Your task to perform on an android device: Open internet settings Image 0: 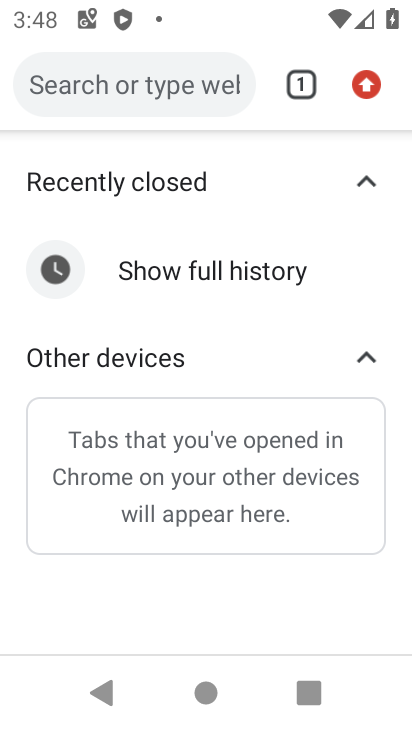
Step 0: press home button
Your task to perform on an android device: Open internet settings Image 1: 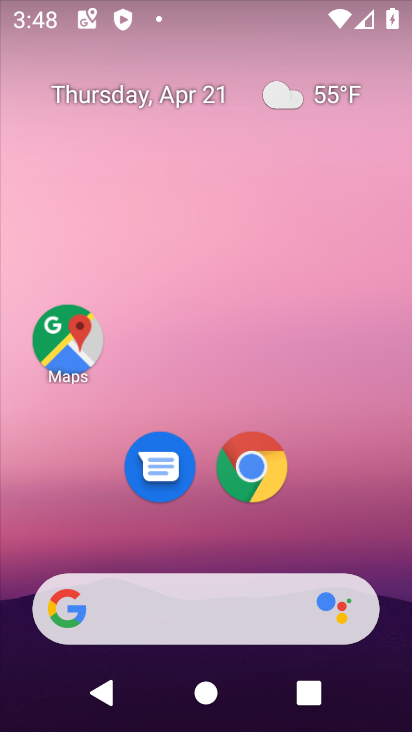
Step 1: drag from (231, 663) to (214, 196)
Your task to perform on an android device: Open internet settings Image 2: 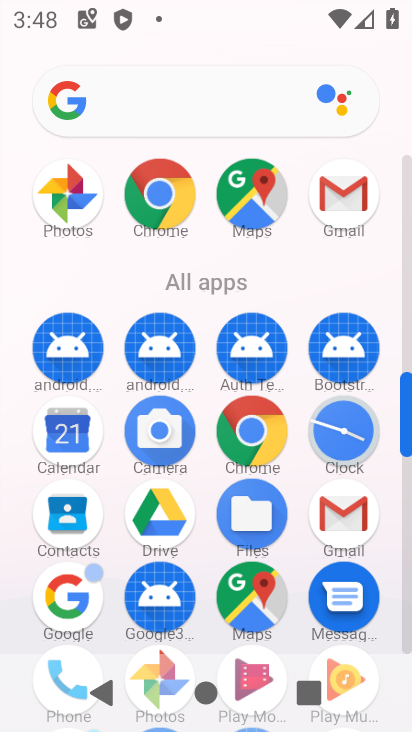
Step 2: drag from (144, 604) to (132, 213)
Your task to perform on an android device: Open internet settings Image 3: 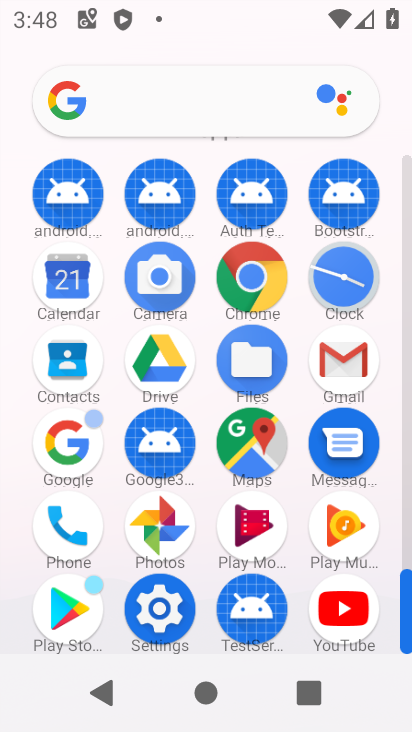
Step 3: click (166, 601)
Your task to perform on an android device: Open internet settings Image 4: 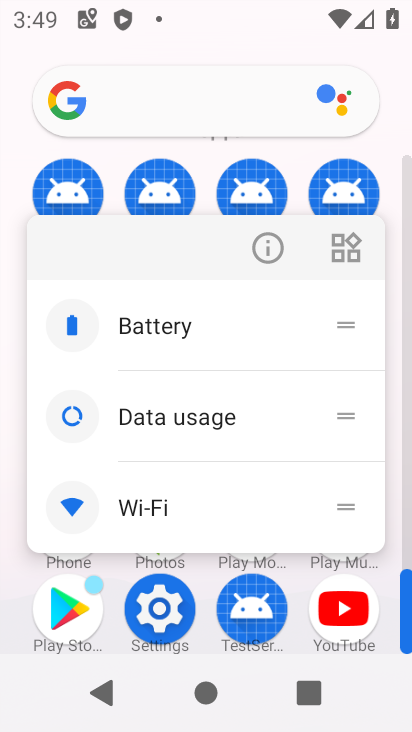
Step 4: click (143, 623)
Your task to perform on an android device: Open internet settings Image 5: 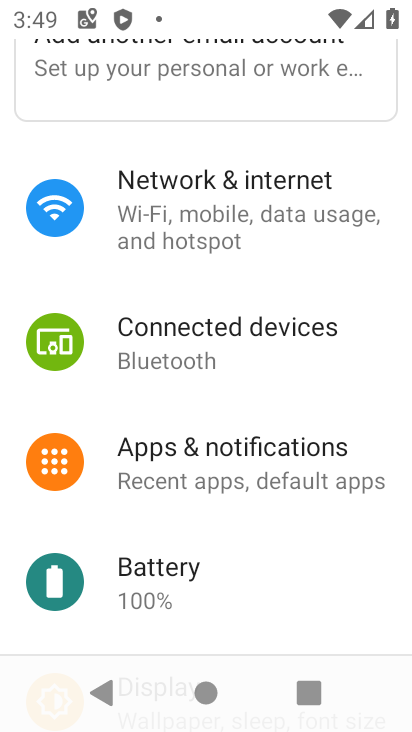
Step 5: click (238, 231)
Your task to perform on an android device: Open internet settings Image 6: 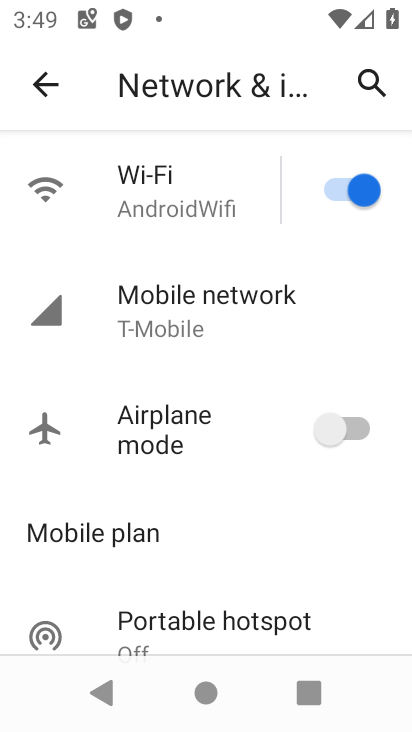
Step 6: drag from (175, 467) to (171, 245)
Your task to perform on an android device: Open internet settings Image 7: 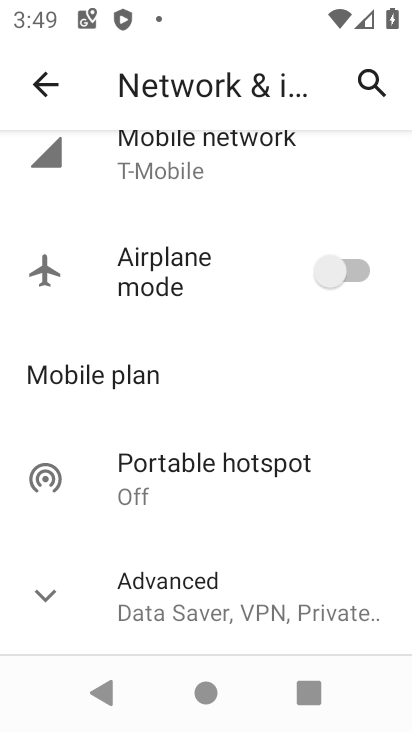
Step 7: click (201, 161)
Your task to perform on an android device: Open internet settings Image 8: 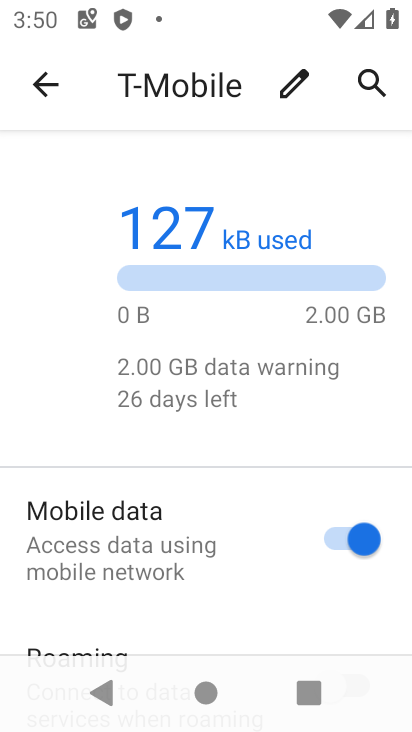
Step 8: click (276, 191)
Your task to perform on an android device: Open internet settings Image 9: 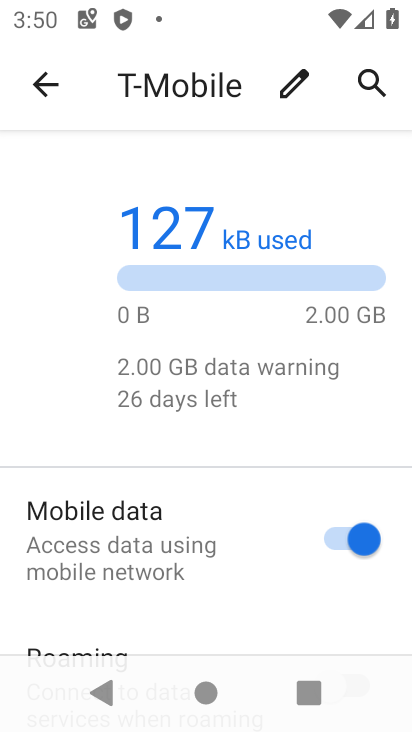
Step 9: task complete